Your task to perform on an android device: toggle show notifications on the lock screen Image 0: 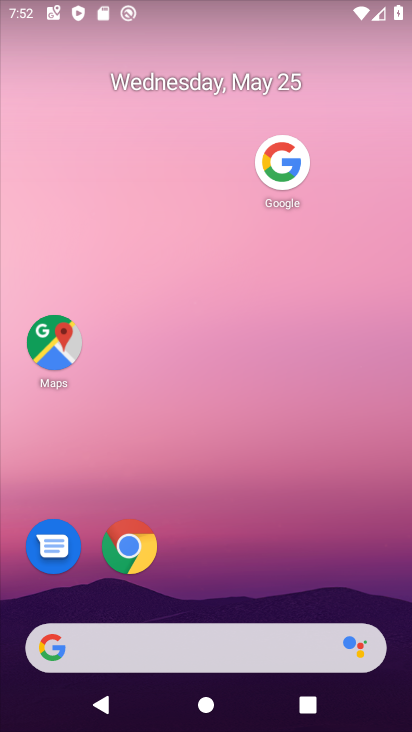
Step 0: drag from (192, 636) to (339, 141)
Your task to perform on an android device: toggle show notifications on the lock screen Image 1: 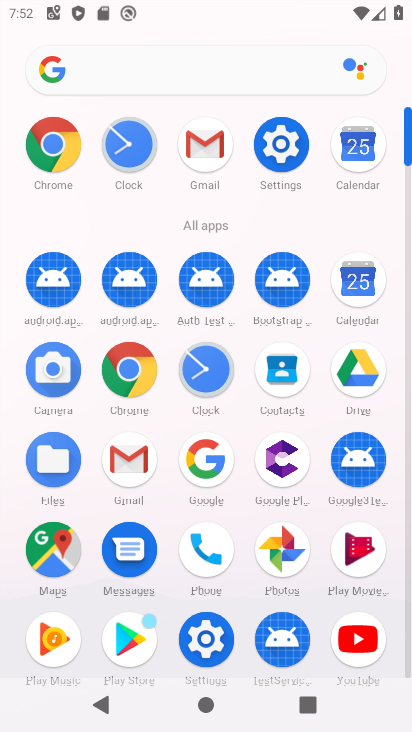
Step 1: click (290, 149)
Your task to perform on an android device: toggle show notifications on the lock screen Image 2: 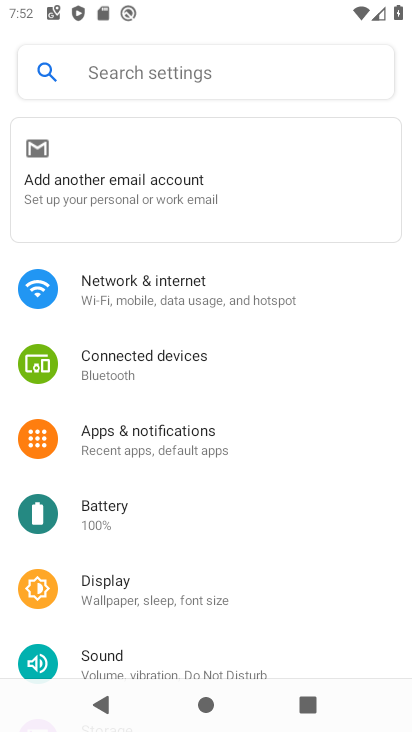
Step 2: click (187, 445)
Your task to perform on an android device: toggle show notifications on the lock screen Image 3: 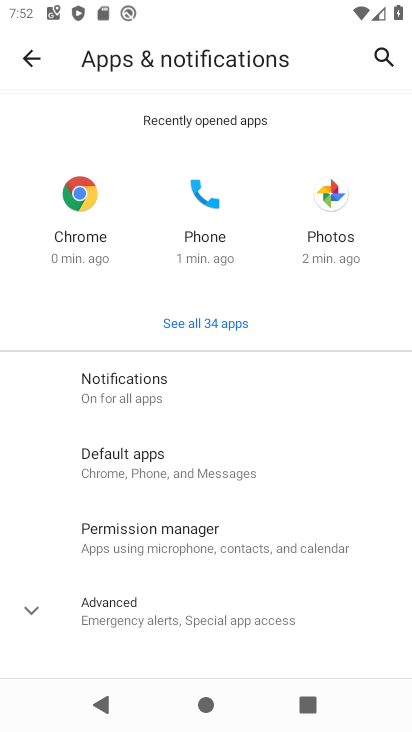
Step 3: click (133, 386)
Your task to perform on an android device: toggle show notifications on the lock screen Image 4: 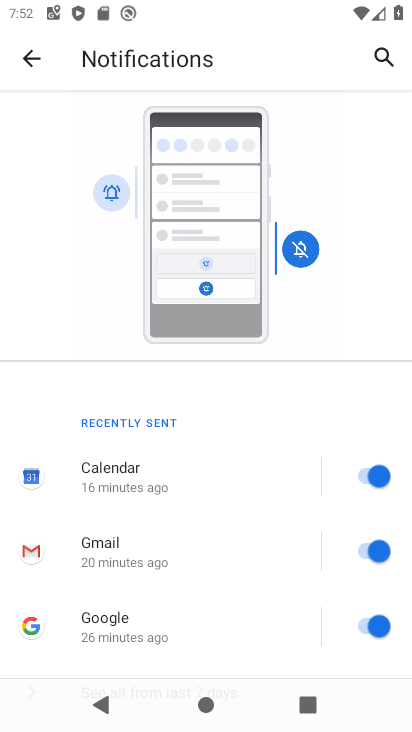
Step 4: drag from (209, 586) to (376, 280)
Your task to perform on an android device: toggle show notifications on the lock screen Image 5: 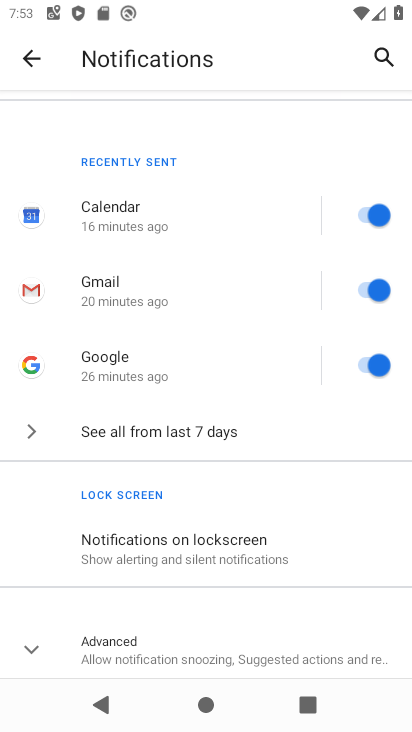
Step 5: click (230, 551)
Your task to perform on an android device: toggle show notifications on the lock screen Image 6: 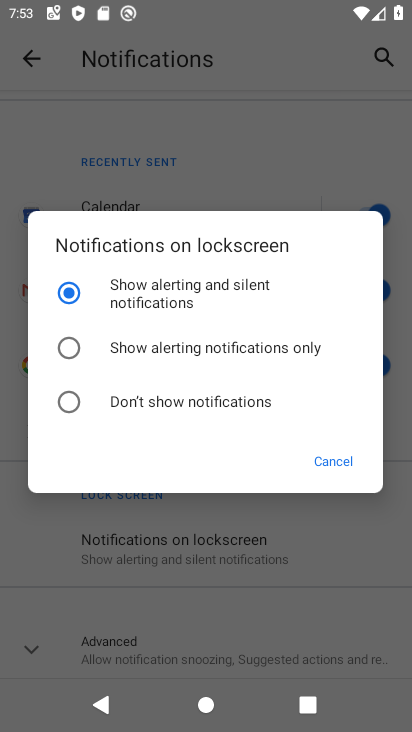
Step 6: click (70, 396)
Your task to perform on an android device: toggle show notifications on the lock screen Image 7: 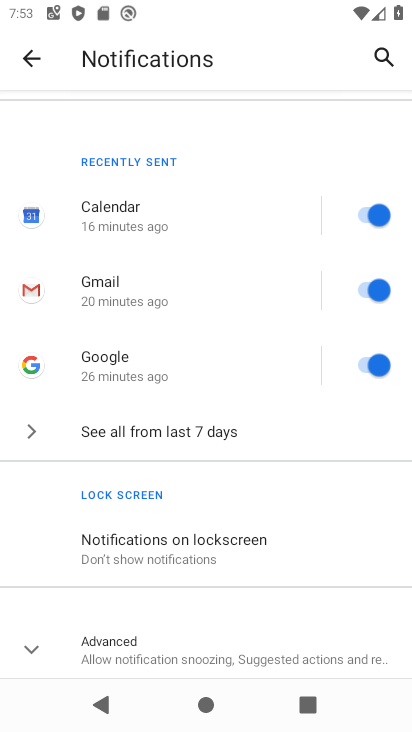
Step 7: task complete